Your task to perform on an android device: Open eBay Image 0: 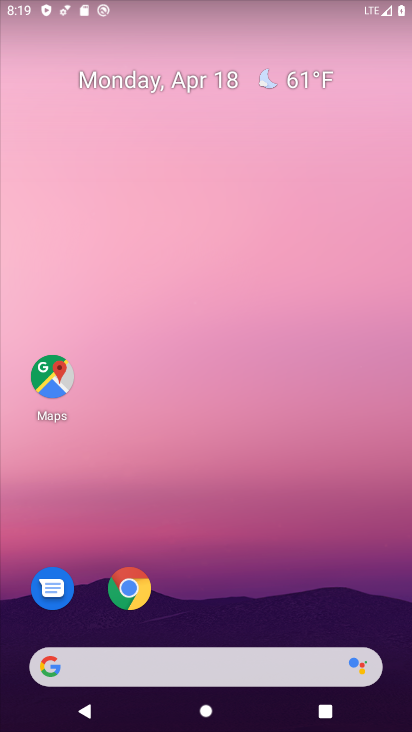
Step 0: click (127, 588)
Your task to perform on an android device: Open eBay Image 1: 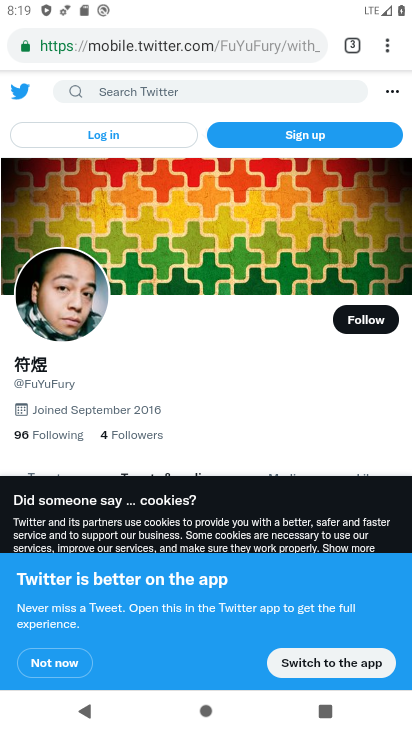
Step 1: click (125, 40)
Your task to perform on an android device: Open eBay Image 2: 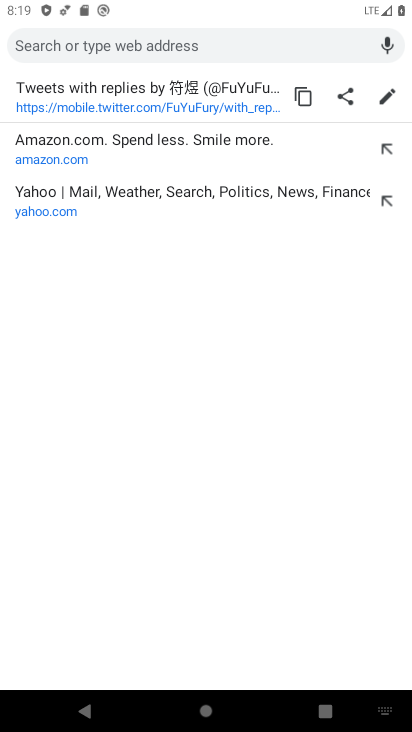
Step 2: type "ebay"
Your task to perform on an android device: Open eBay Image 3: 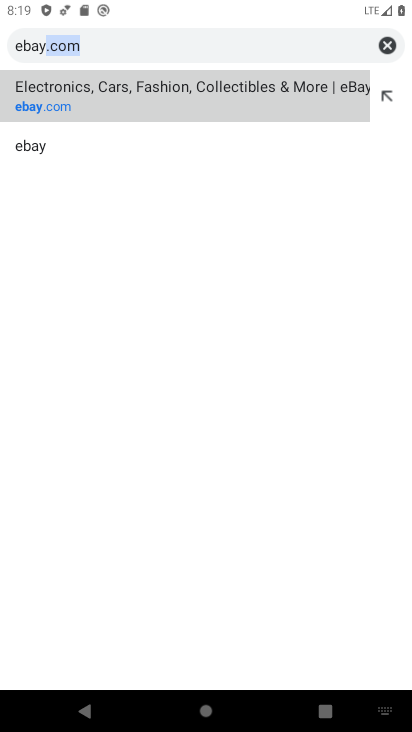
Step 3: click (44, 91)
Your task to perform on an android device: Open eBay Image 4: 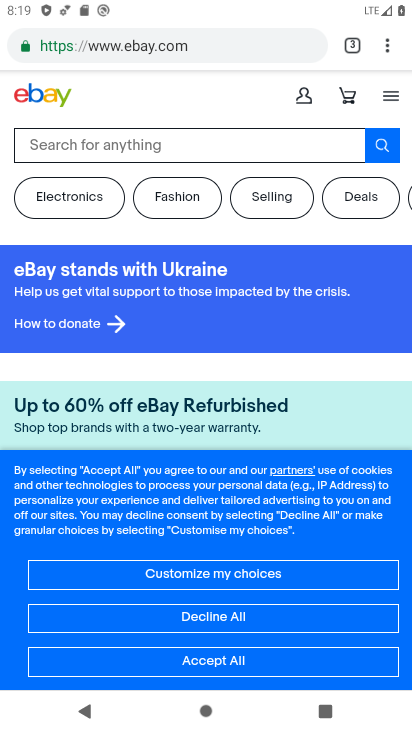
Step 4: task complete